Your task to perform on an android device: What's on my calendar today? Image 0: 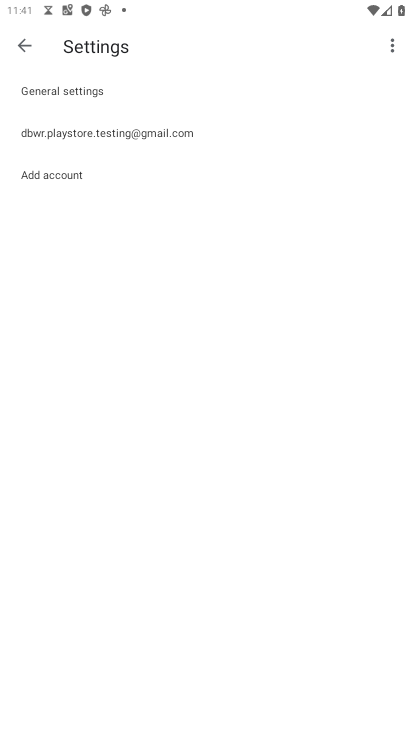
Step 0: press home button
Your task to perform on an android device: What's on my calendar today? Image 1: 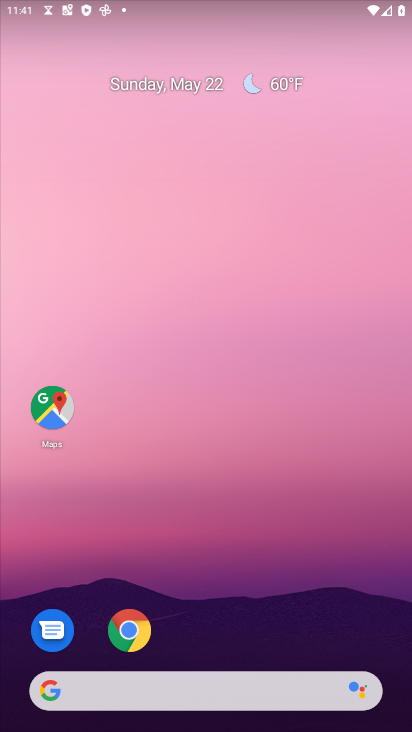
Step 1: drag from (258, 585) to (182, 111)
Your task to perform on an android device: What's on my calendar today? Image 2: 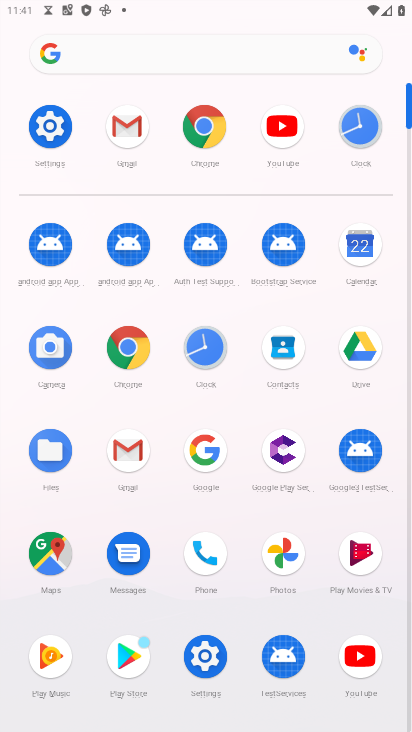
Step 2: click (359, 245)
Your task to perform on an android device: What's on my calendar today? Image 3: 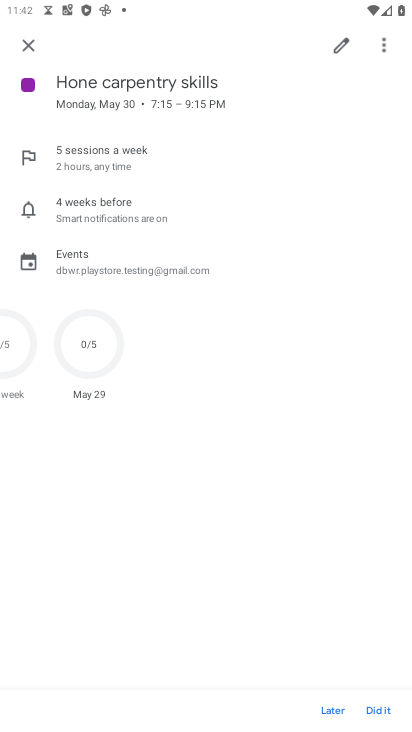
Step 3: click (24, 46)
Your task to perform on an android device: What's on my calendar today? Image 4: 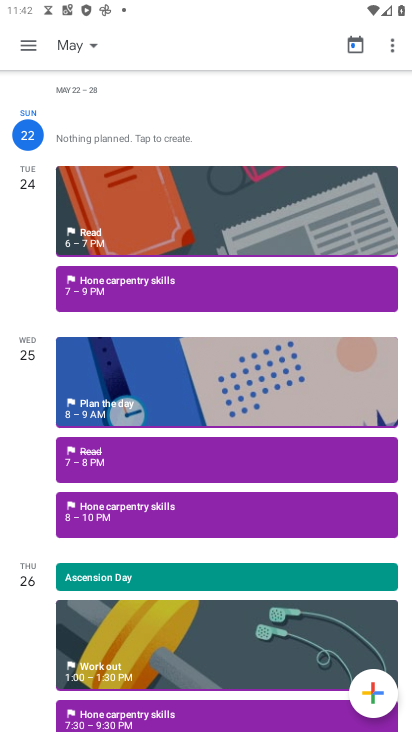
Step 4: click (355, 44)
Your task to perform on an android device: What's on my calendar today? Image 5: 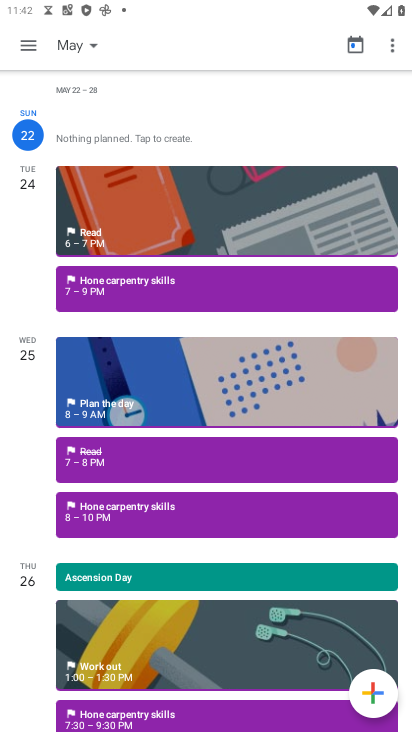
Step 5: click (107, 140)
Your task to perform on an android device: What's on my calendar today? Image 6: 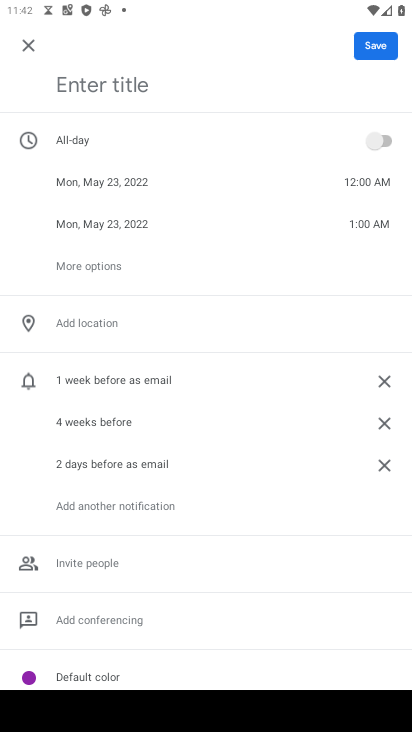
Step 6: task complete